Your task to perform on an android device: create a new album in the google photos Image 0: 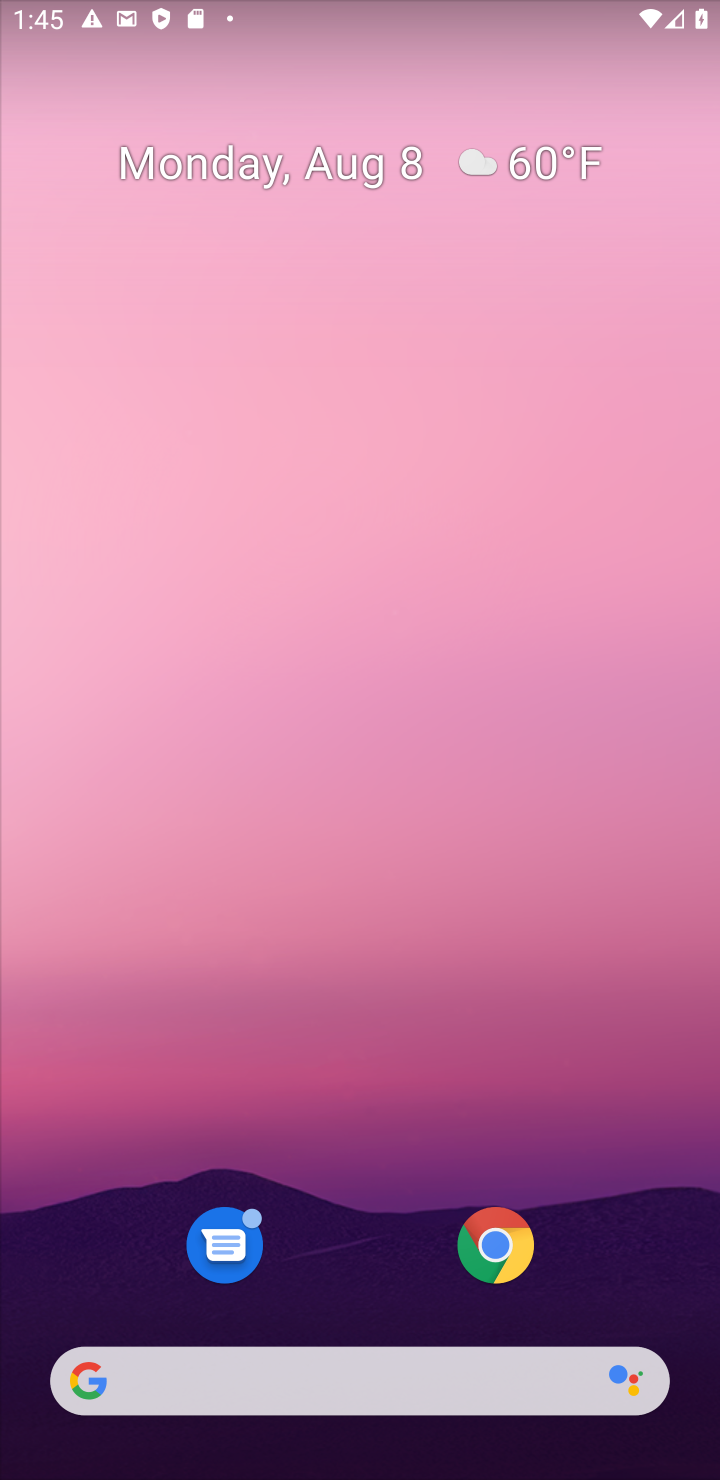
Step 0: drag from (360, 1211) to (370, 224)
Your task to perform on an android device: create a new album in the google photos Image 1: 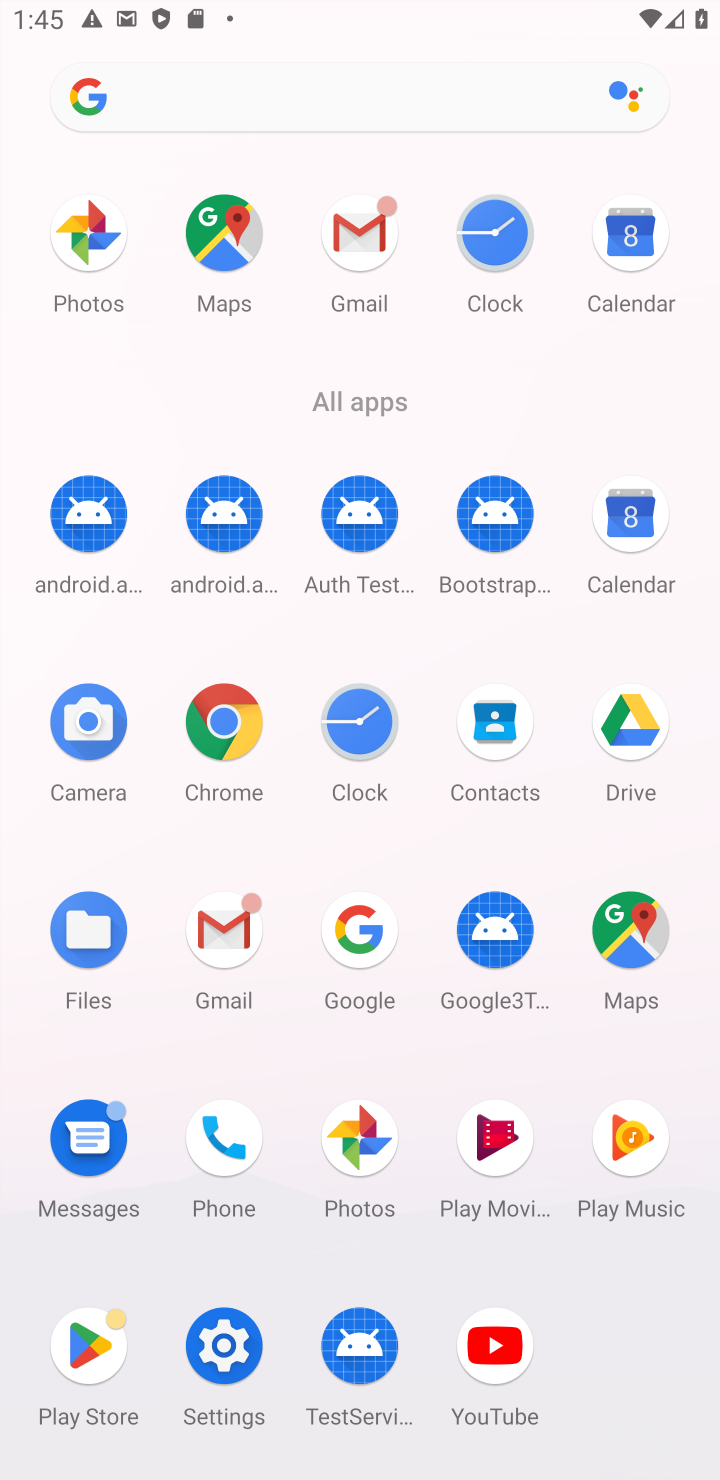
Step 1: click (90, 233)
Your task to perform on an android device: create a new album in the google photos Image 2: 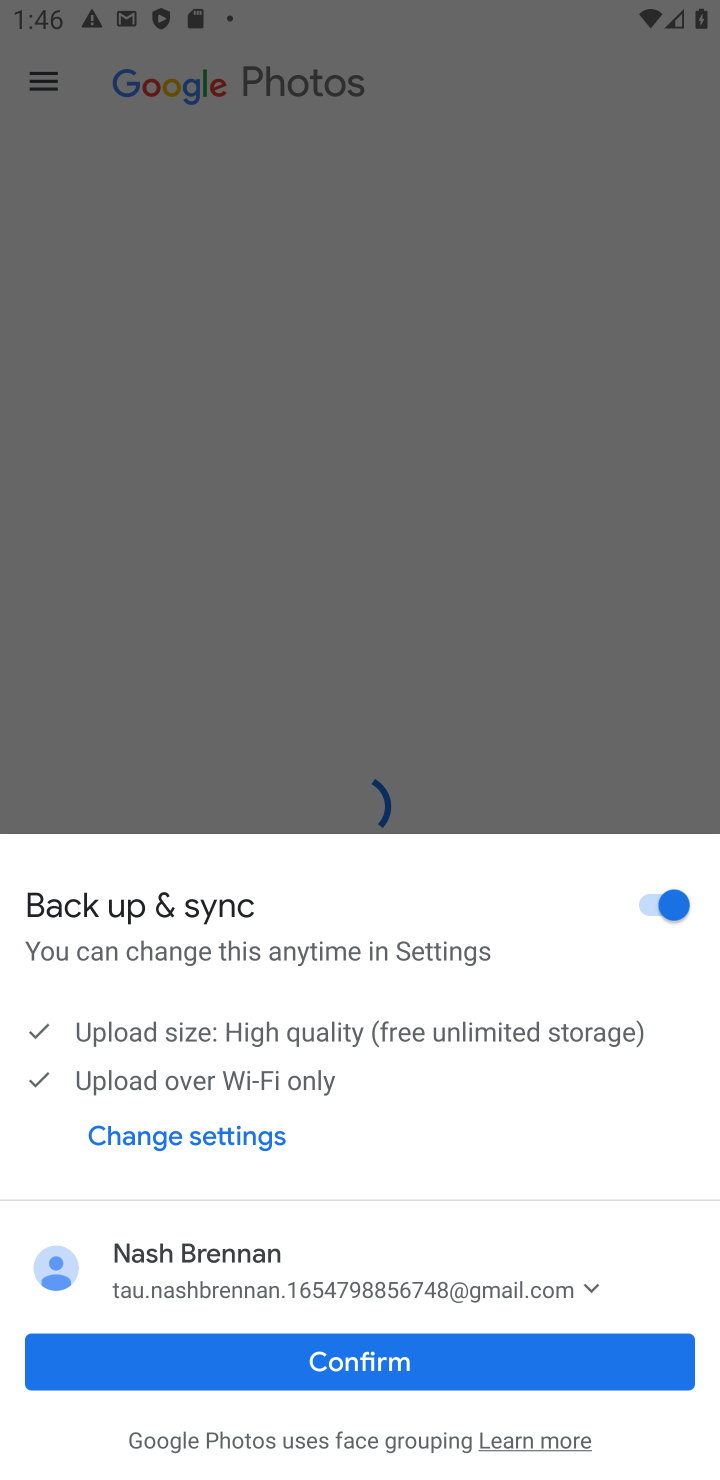
Step 2: click (371, 1356)
Your task to perform on an android device: create a new album in the google photos Image 3: 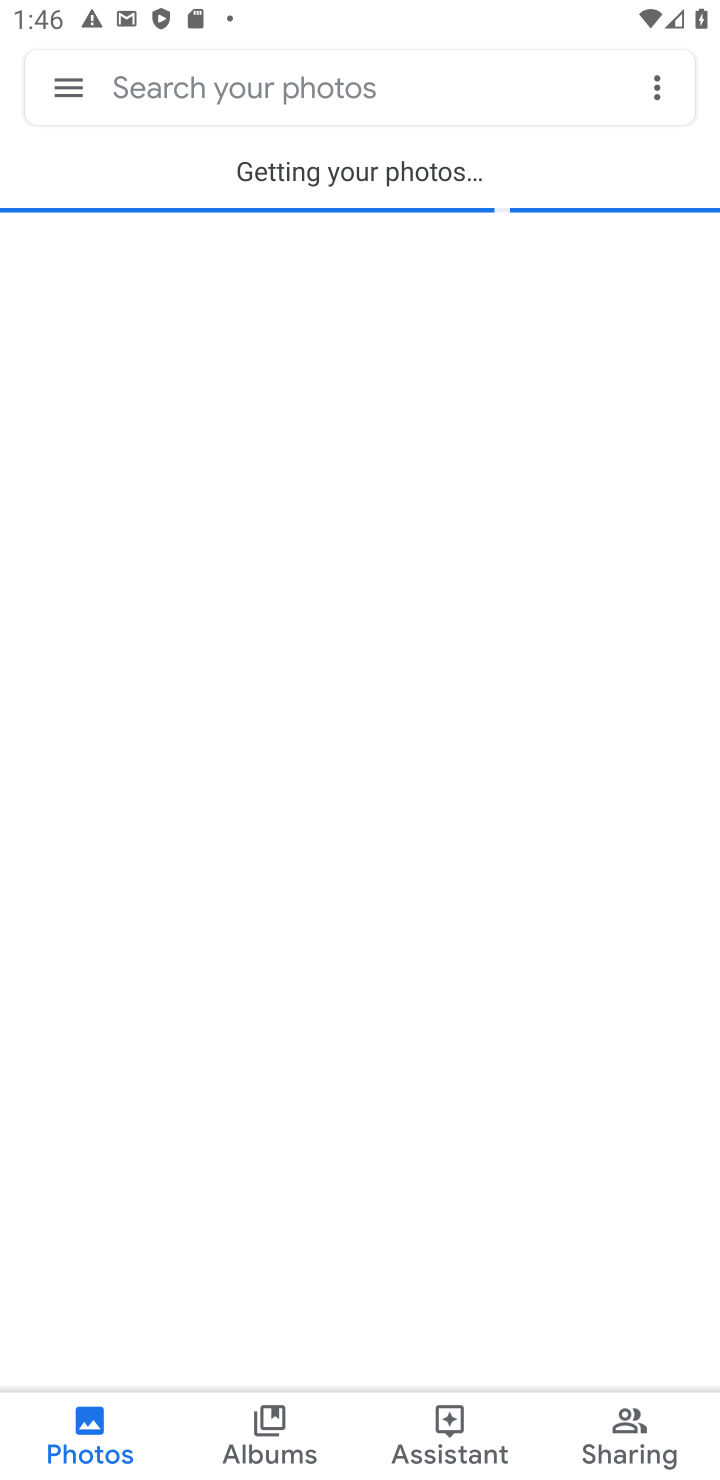
Step 3: click (268, 1438)
Your task to perform on an android device: create a new album in the google photos Image 4: 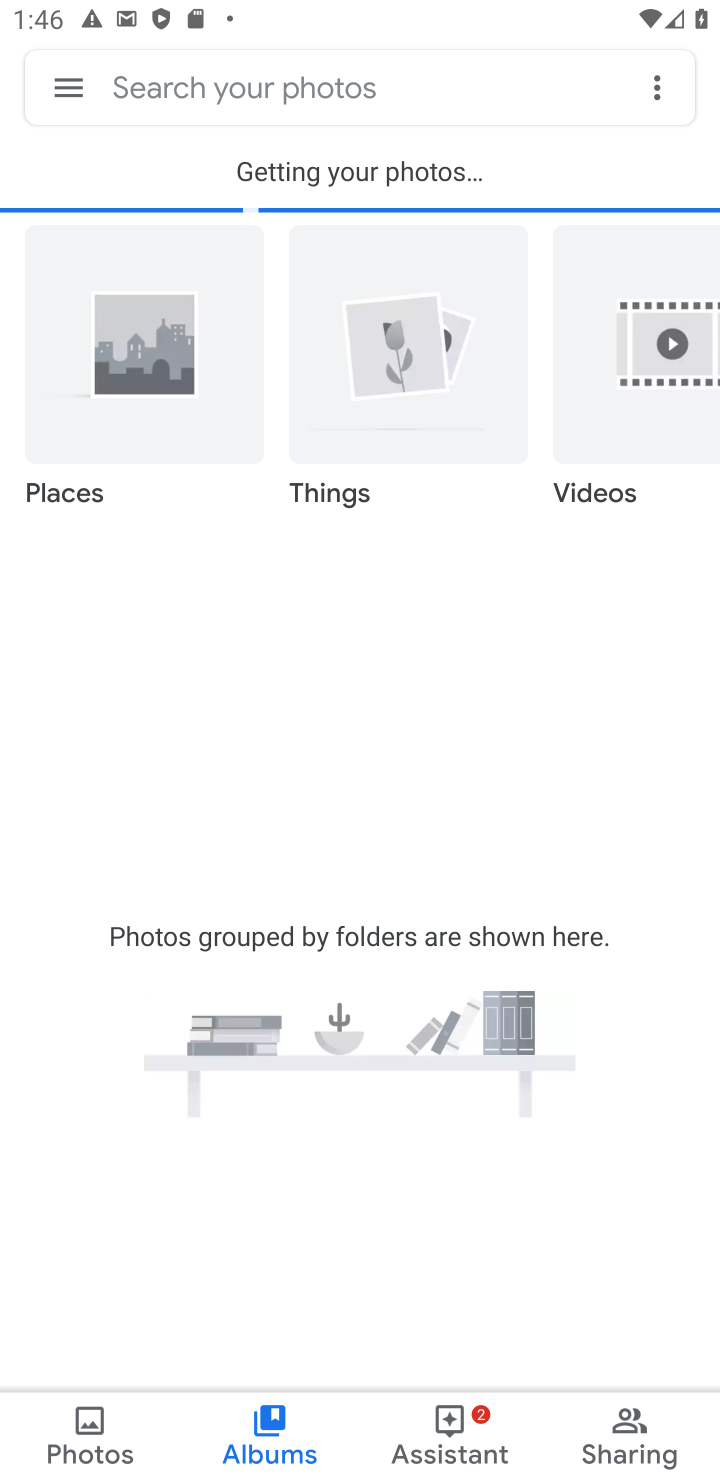
Step 4: click (657, 90)
Your task to perform on an android device: create a new album in the google photos Image 5: 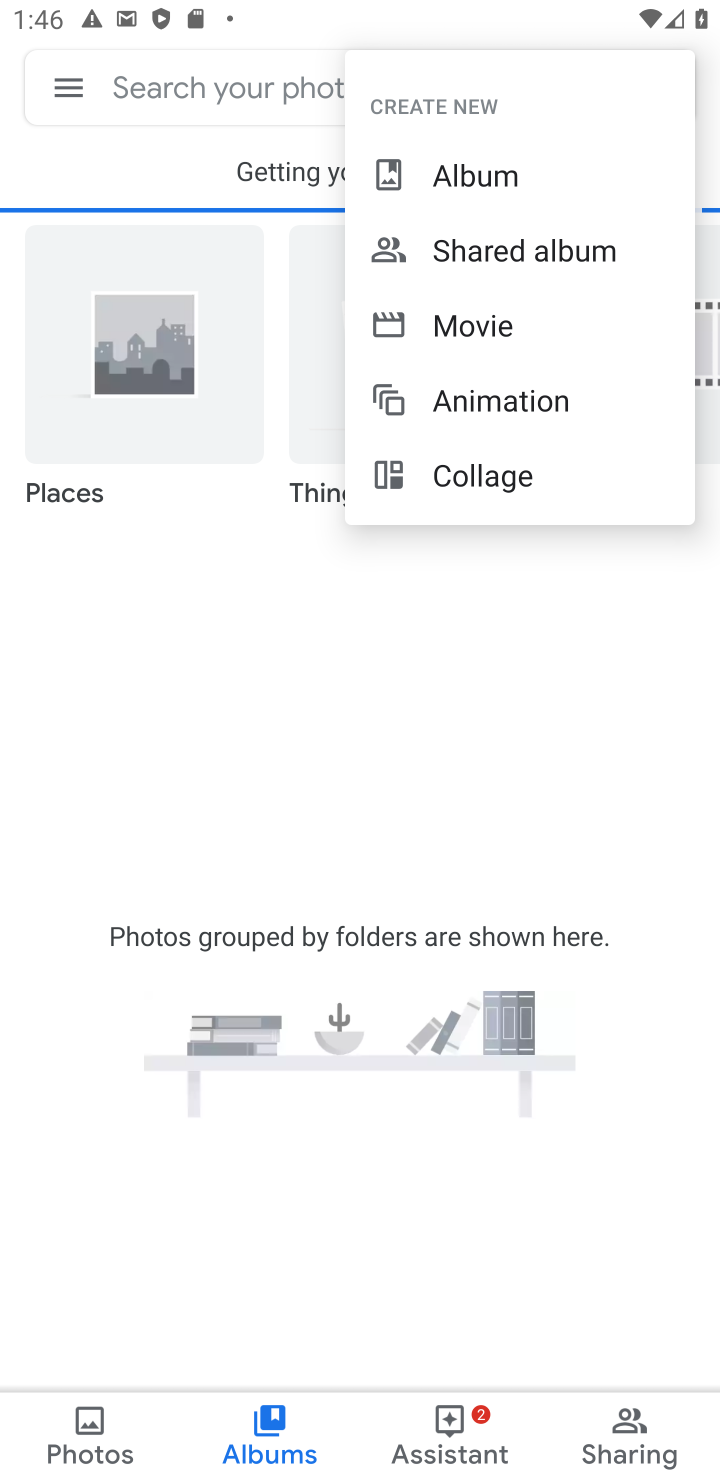
Step 5: click (455, 171)
Your task to perform on an android device: create a new album in the google photos Image 6: 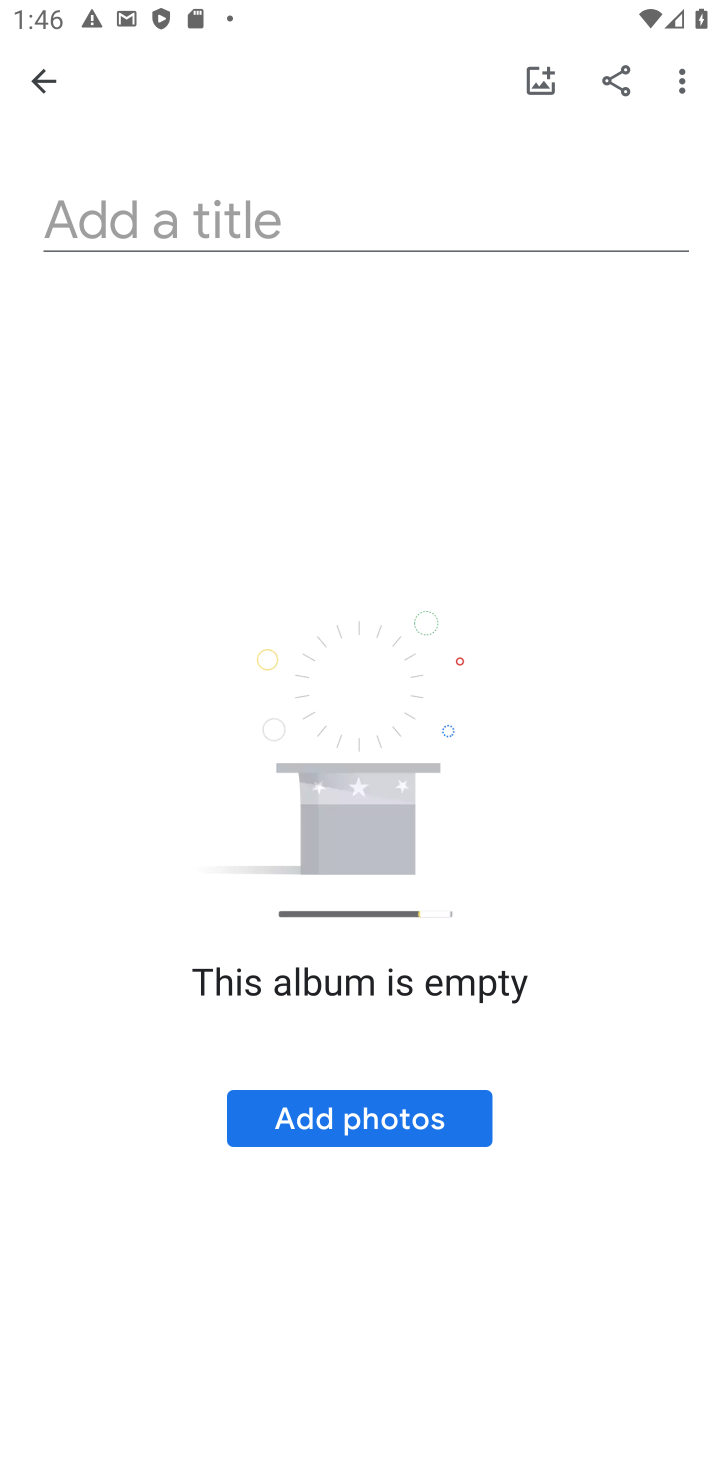
Step 6: click (209, 193)
Your task to perform on an android device: create a new album in the google photos Image 7: 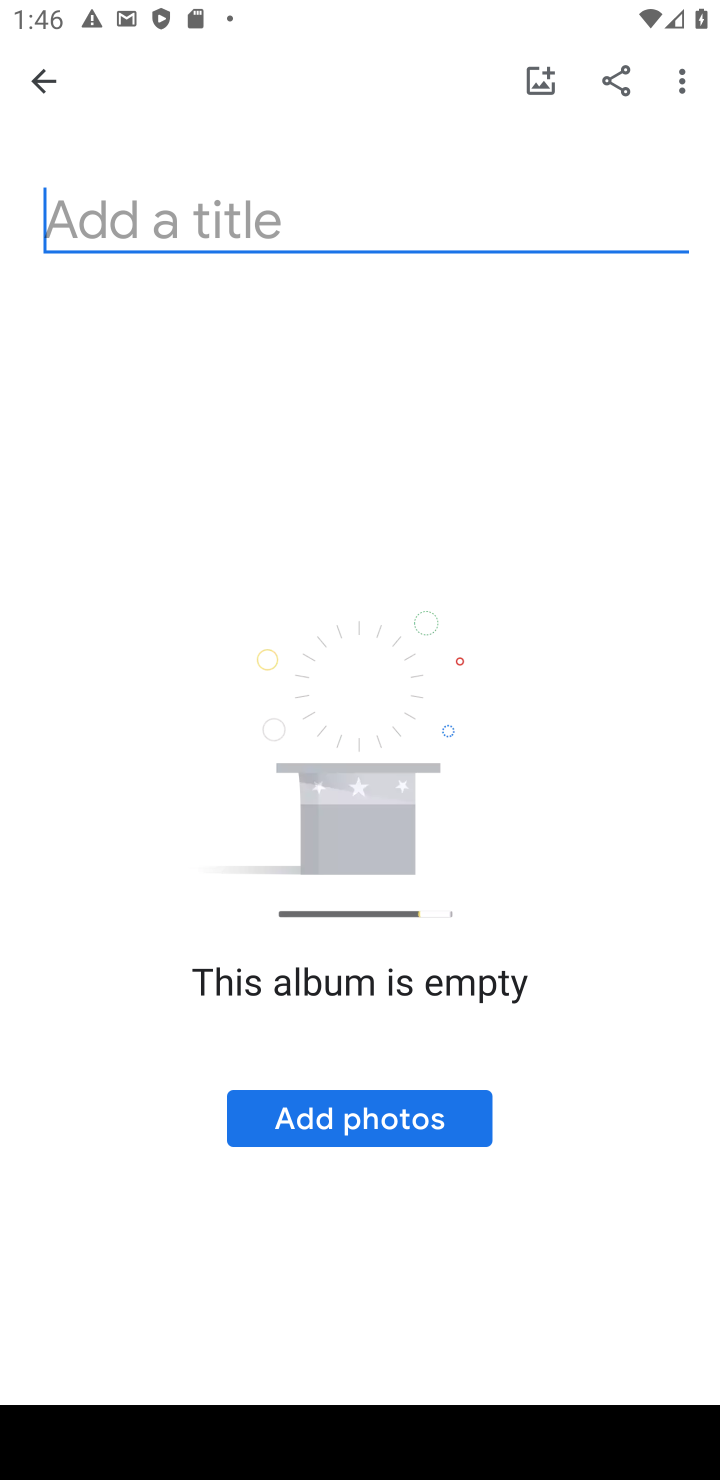
Step 7: type "hgggggg"
Your task to perform on an android device: create a new album in the google photos Image 8: 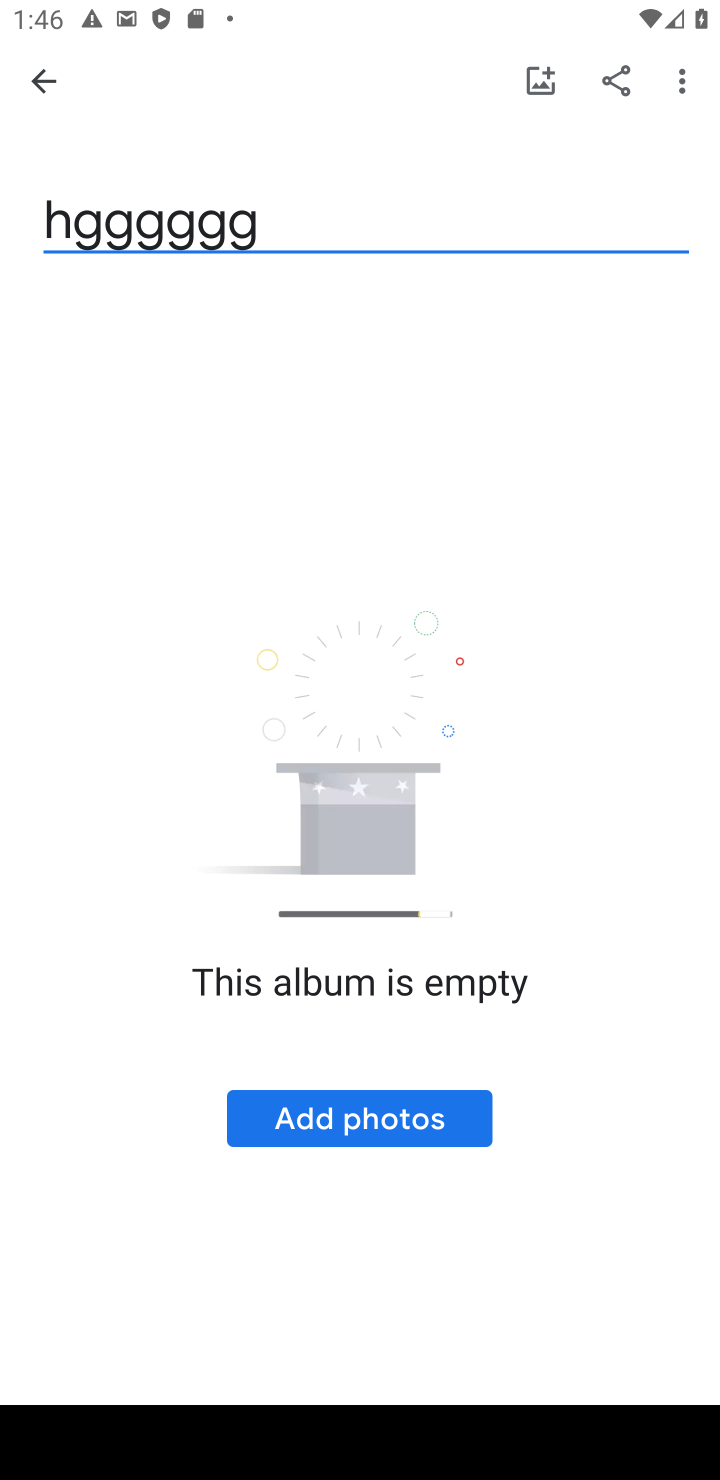
Step 8: click (540, 73)
Your task to perform on an android device: create a new album in the google photos Image 9: 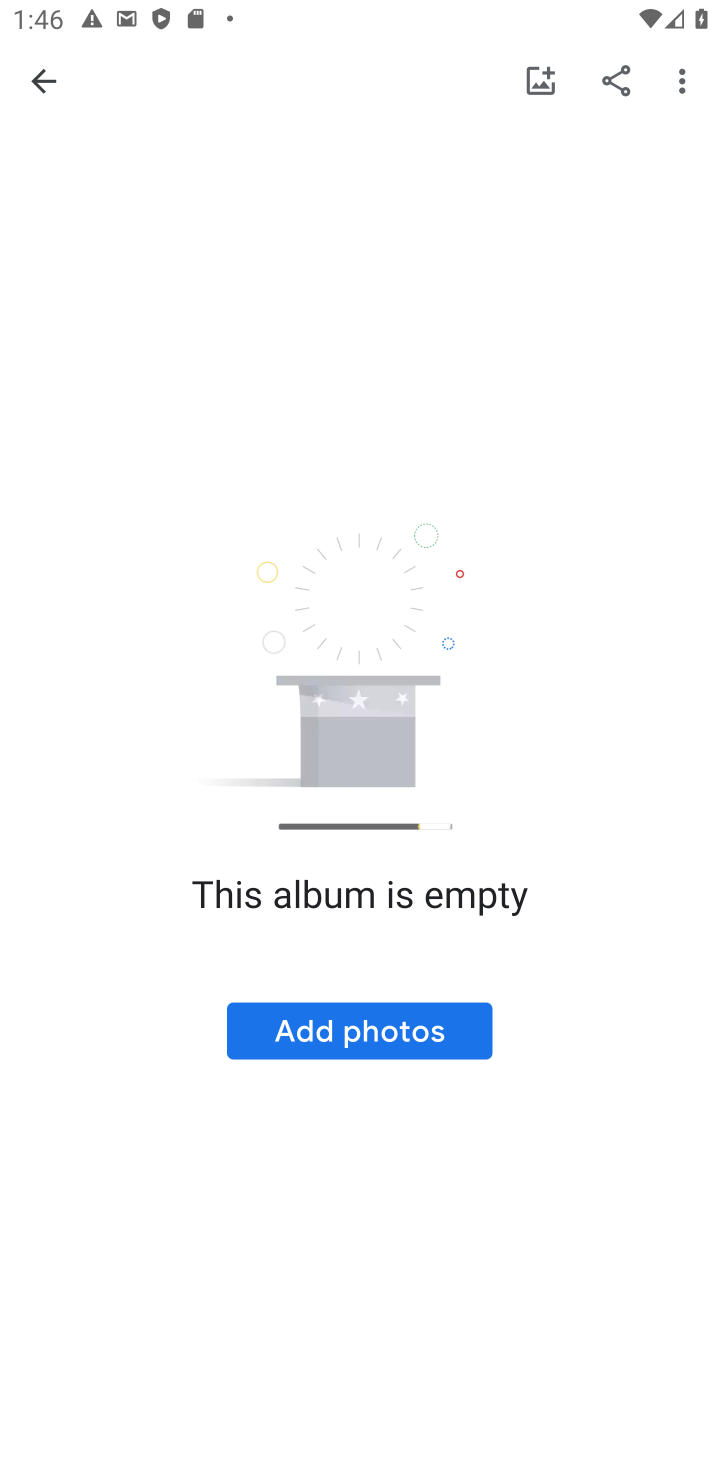
Step 9: task complete